Your task to perform on an android device: check battery use Image 0: 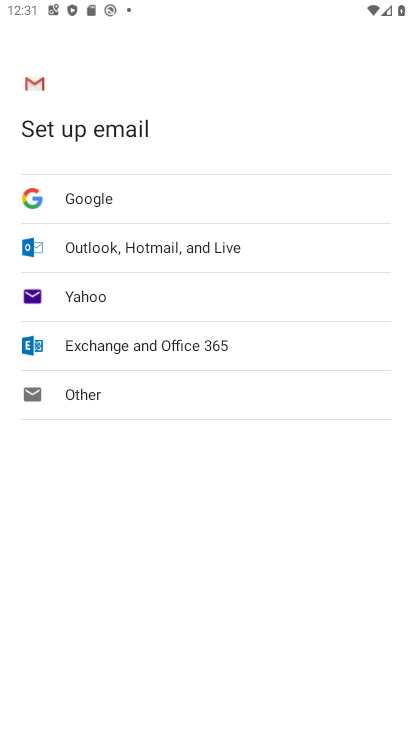
Step 0: drag from (202, 705) to (331, 196)
Your task to perform on an android device: check battery use Image 1: 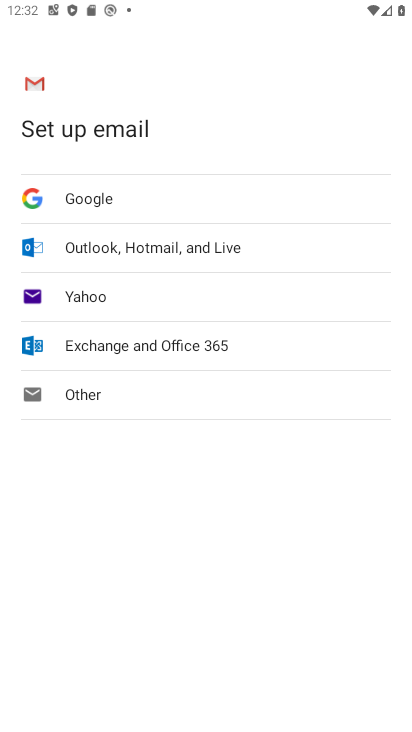
Step 1: press home button
Your task to perform on an android device: check battery use Image 2: 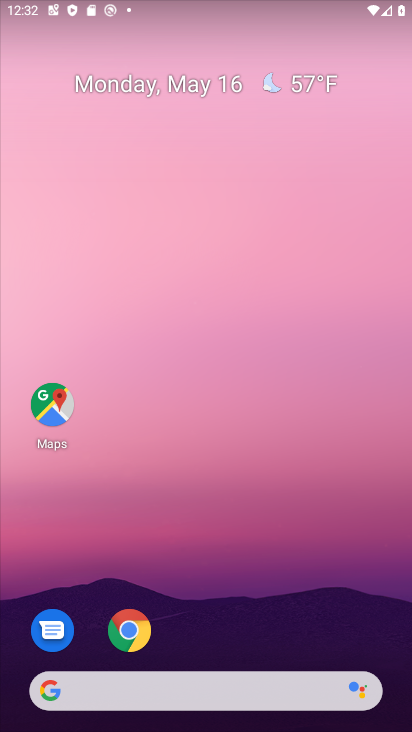
Step 2: drag from (207, 667) to (244, 162)
Your task to perform on an android device: check battery use Image 3: 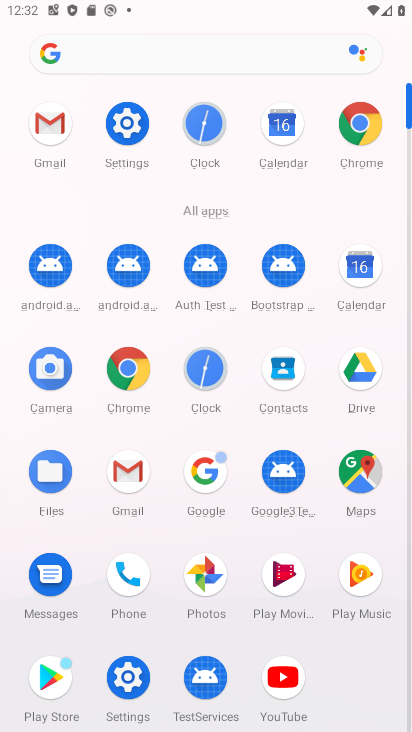
Step 3: click (126, 118)
Your task to perform on an android device: check battery use Image 4: 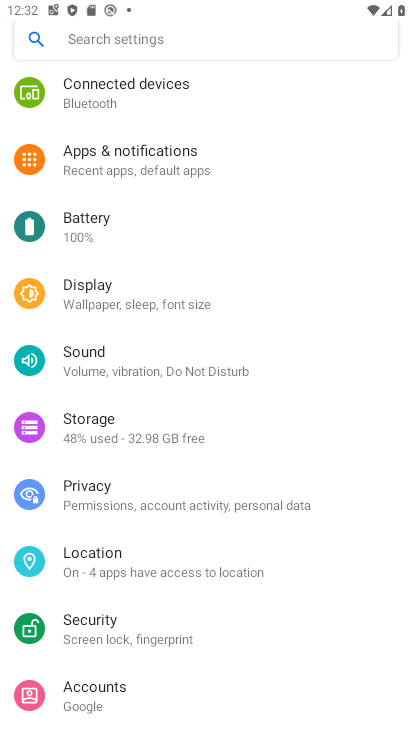
Step 4: click (93, 227)
Your task to perform on an android device: check battery use Image 5: 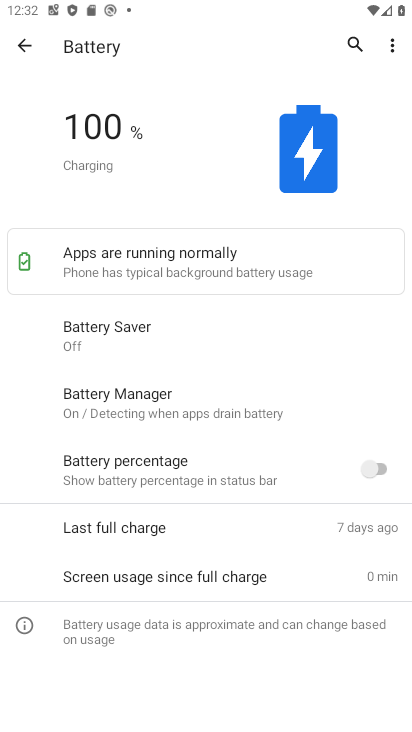
Step 5: click (397, 39)
Your task to perform on an android device: check battery use Image 6: 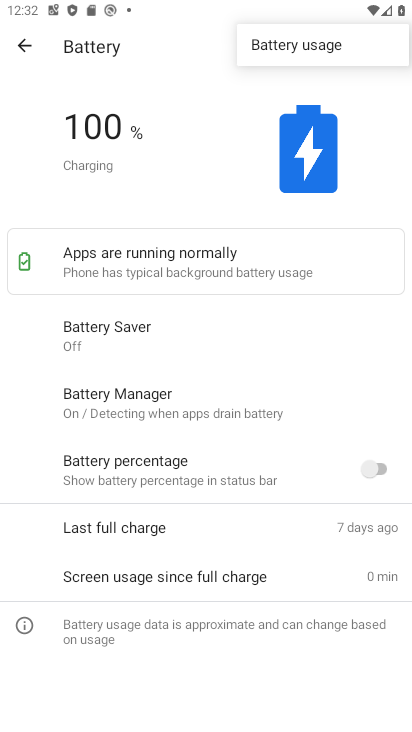
Step 6: click (288, 46)
Your task to perform on an android device: check battery use Image 7: 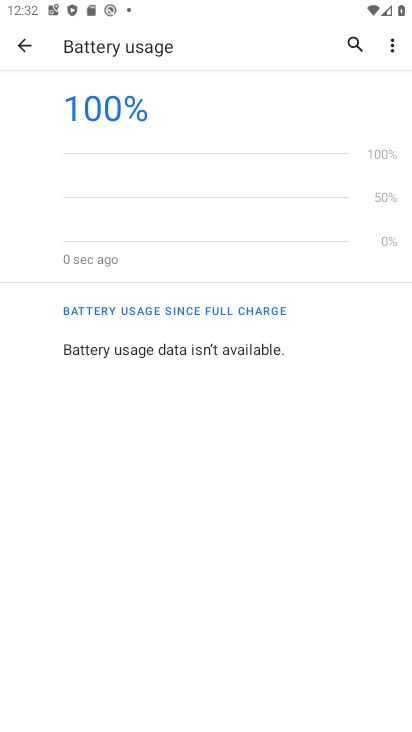
Step 7: task complete